Your task to perform on an android device: open a bookmark in the chrome app Image 0: 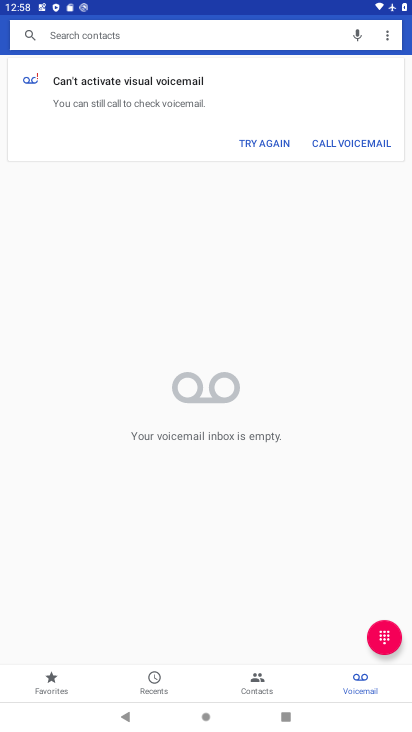
Step 0: task complete